Your task to perform on an android device: change the clock display to analog Image 0: 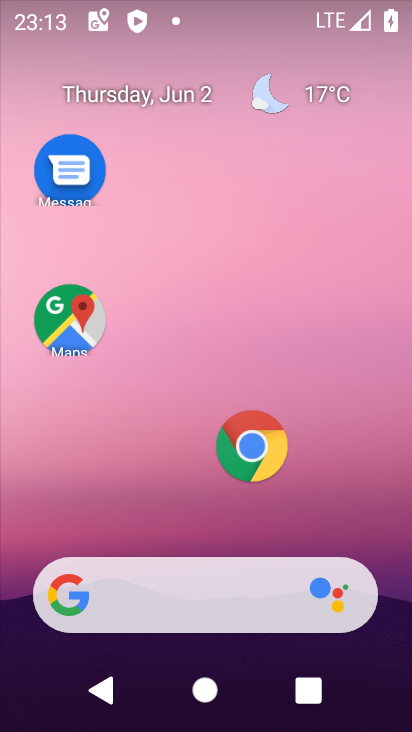
Step 0: drag from (307, 525) to (363, 40)
Your task to perform on an android device: change the clock display to analog Image 1: 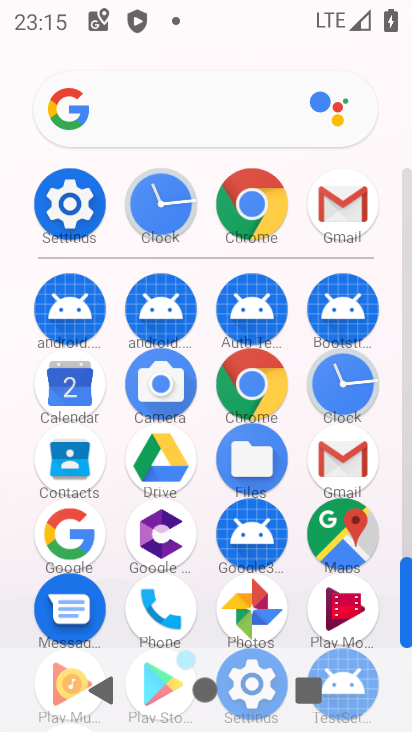
Step 1: click (323, 390)
Your task to perform on an android device: change the clock display to analog Image 2: 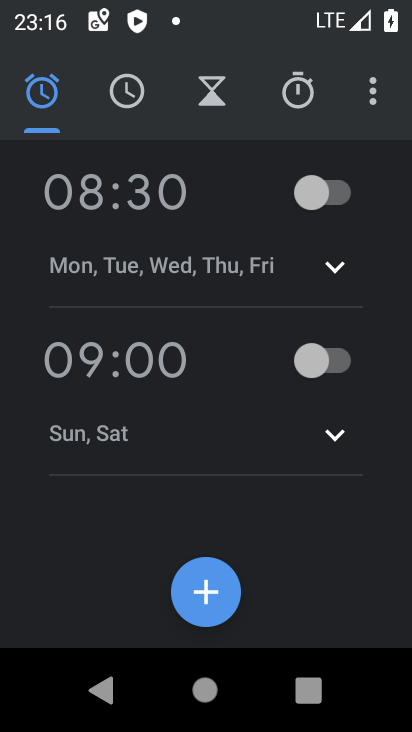
Step 2: click (366, 96)
Your task to perform on an android device: change the clock display to analog Image 3: 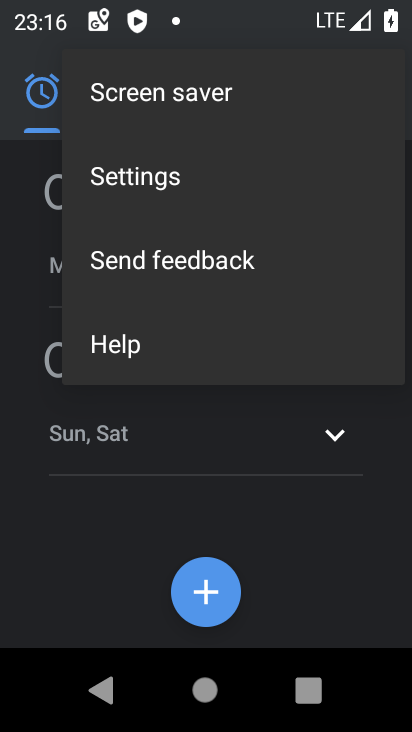
Step 3: click (185, 191)
Your task to perform on an android device: change the clock display to analog Image 4: 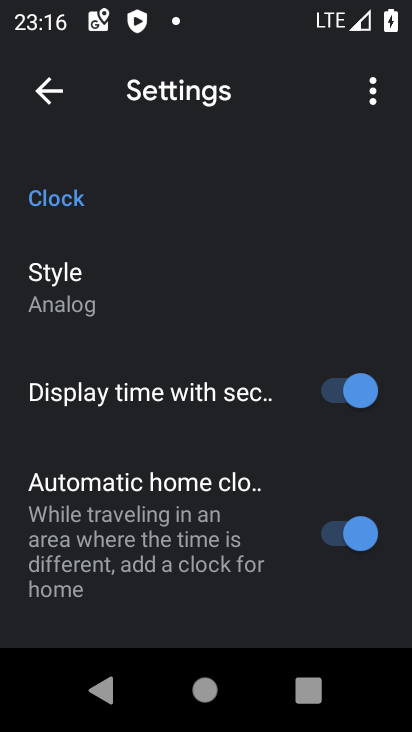
Step 4: task complete